Your task to perform on an android device: turn on notifications settings in the gmail app Image 0: 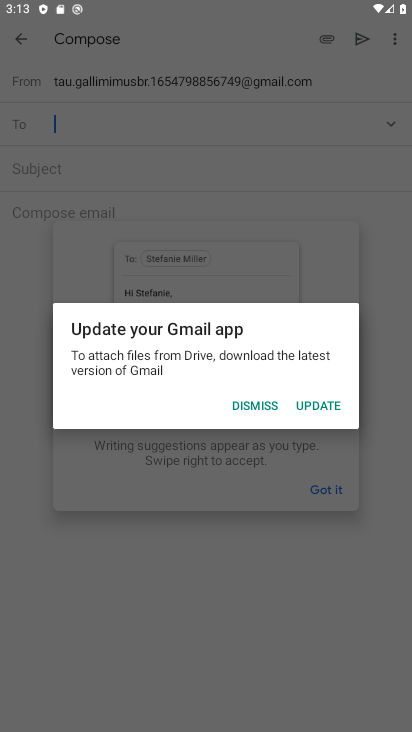
Step 0: press home button
Your task to perform on an android device: turn on notifications settings in the gmail app Image 1: 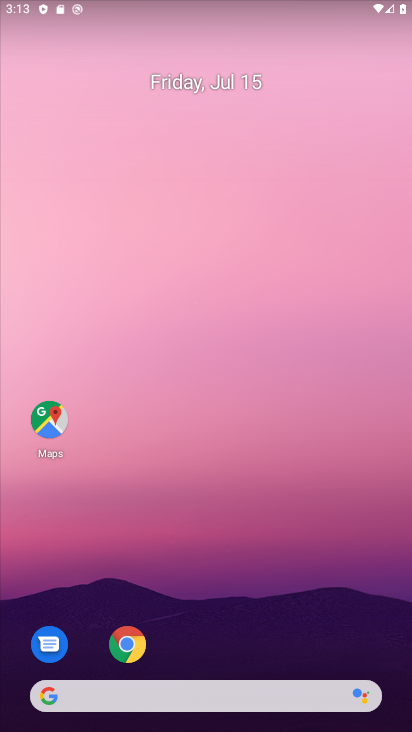
Step 1: drag from (303, 636) to (189, 51)
Your task to perform on an android device: turn on notifications settings in the gmail app Image 2: 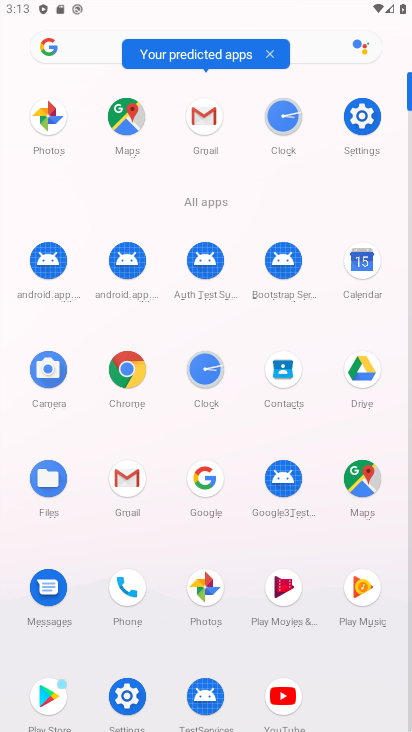
Step 2: click (210, 118)
Your task to perform on an android device: turn on notifications settings in the gmail app Image 3: 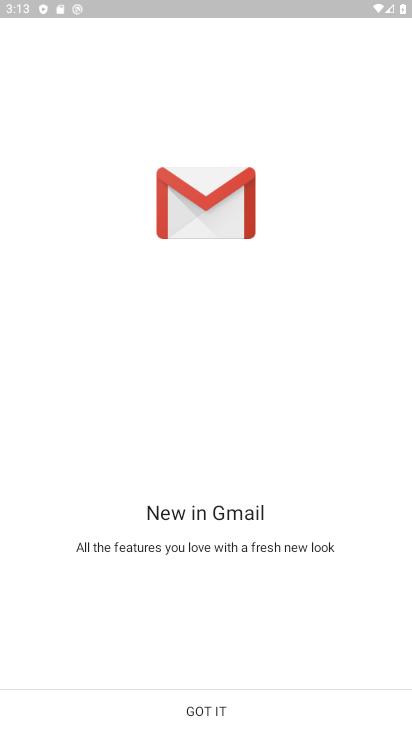
Step 3: click (220, 711)
Your task to perform on an android device: turn on notifications settings in the gmail app Image 4: 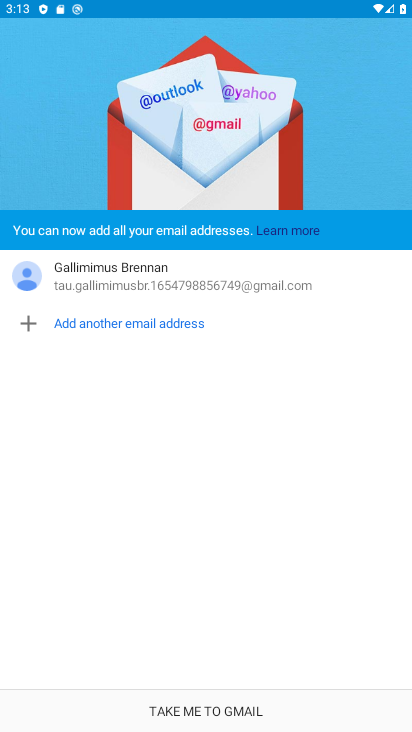
Step 4: click (220, 711)
Your task to perform on an android device: turn on notifications settings in the gmail app Image 5: 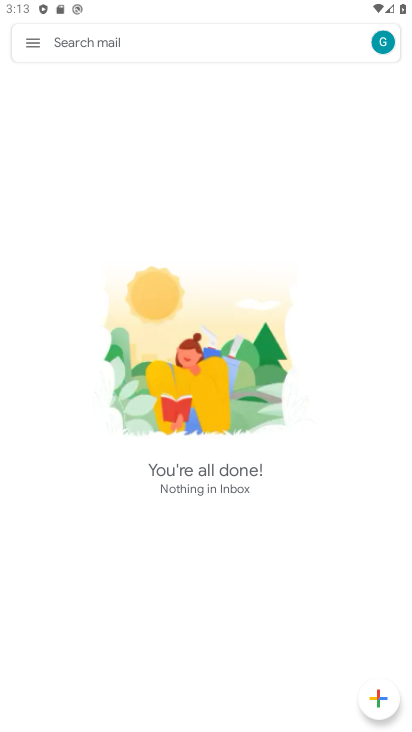
Step 5: click (30, 46)
Your task to perform on an android device: turn on notifications settings in the gmail app Image 6: 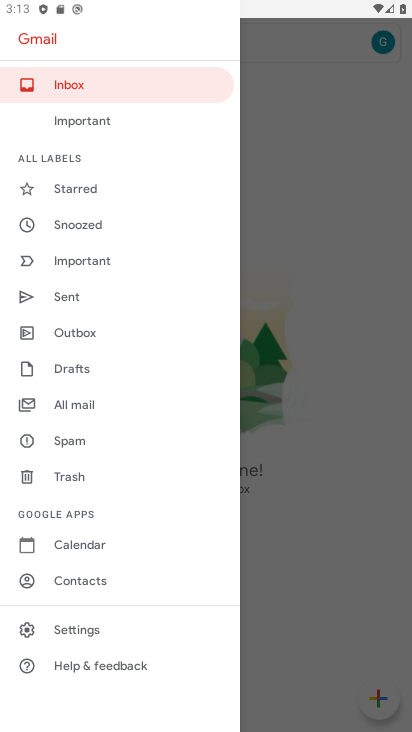
Step 6: click (85, 632)
Your task to perform on an android device: turn on notifications settings in the gmail app Image 7: 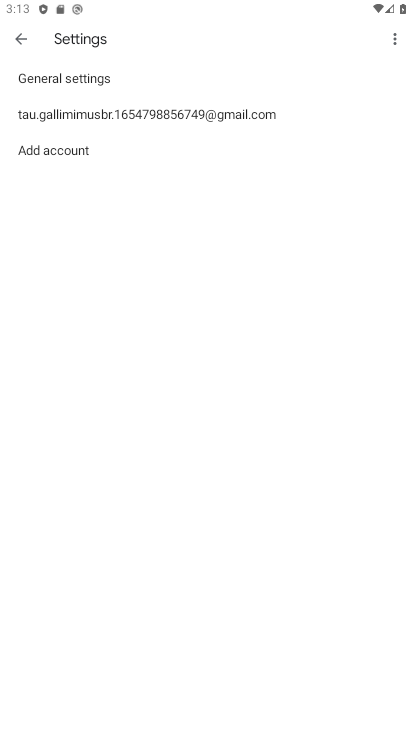
Step 7: click (125, 113)
Your task to perform on an android device: turn on notifications settings in the gmail app Image 8: 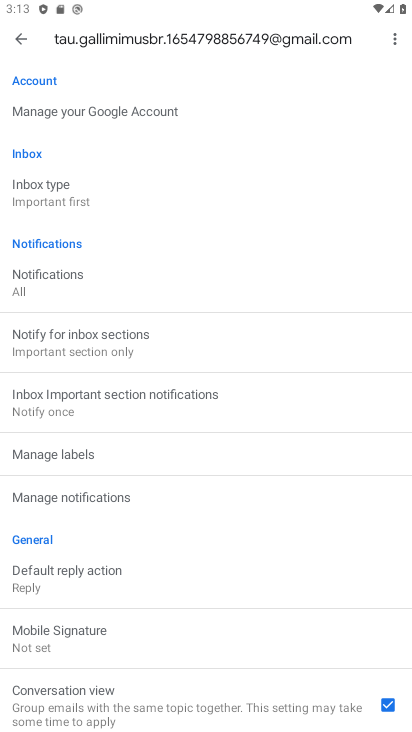
Step 8: click (136, 502)
Your task to perform on an android device: turn on notifications settings in the gmail app Image 9: 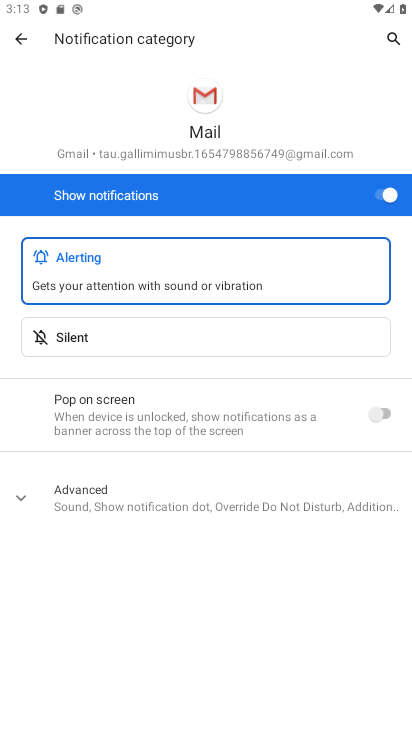
Step 9: click (365, 413)
Your task to perform on an android device: turn on notifications settings in the gmail app Image 10: 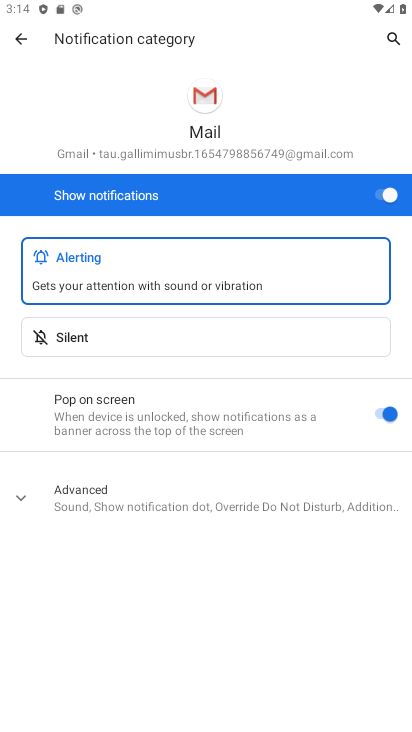
Step 10: task complete